Your task to perform on an android device: Do I have any events tomorrow? Image 0: 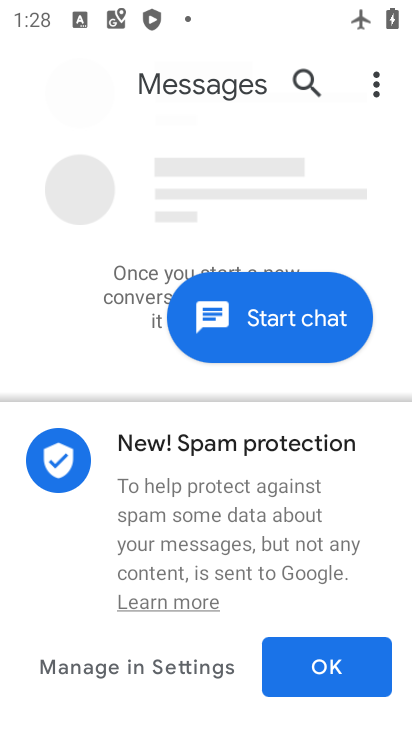
Step 0: press home button
Your task to perform on an android device: Do I have any events tomorrow? Image 1: 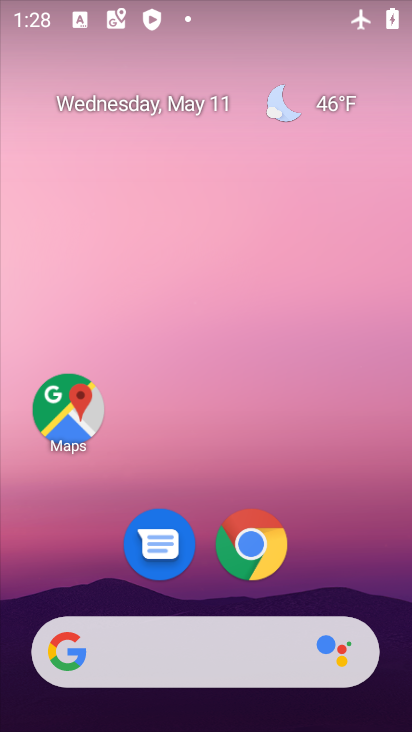
Step 1: drag from (391, 623) to (341, 24)
Your task to perform on an android device: Do I have any events tomorrow? Image 2: 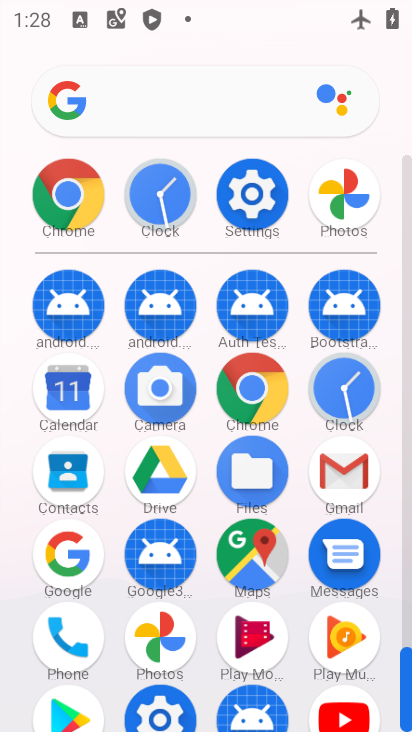
Step 2: click (406, 628)
Your task to perform on an android device: Do I have any events tomorrow? Image 3: 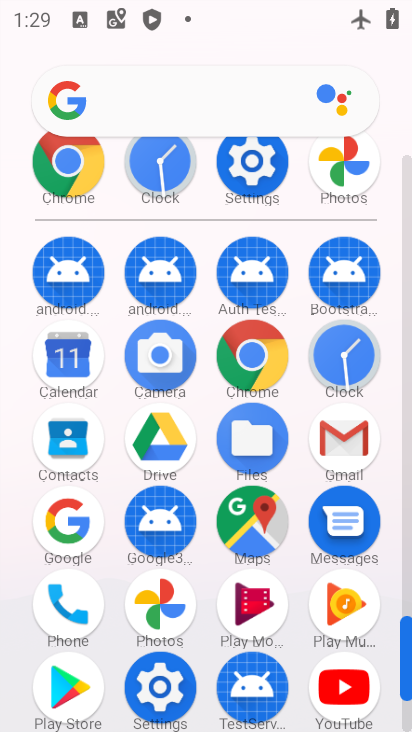
Step 3: click (62, 351)
Your task to perform on an android device: Do I have any events tomorrow? Image 4: 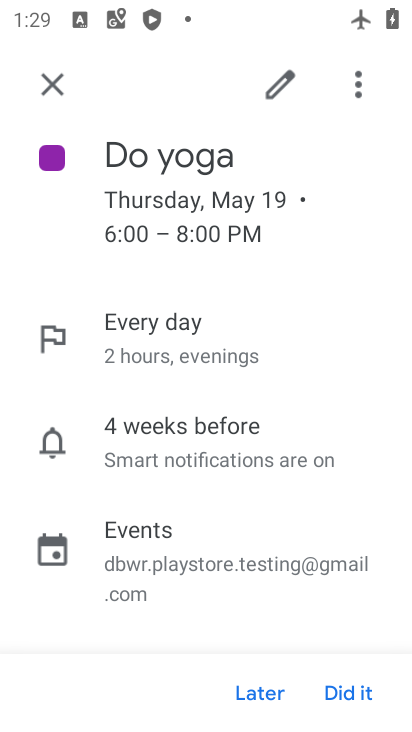
Step 4: click (51, 81)
Your task to perform on an android device: Do I have any events tomorrow? Image 5: 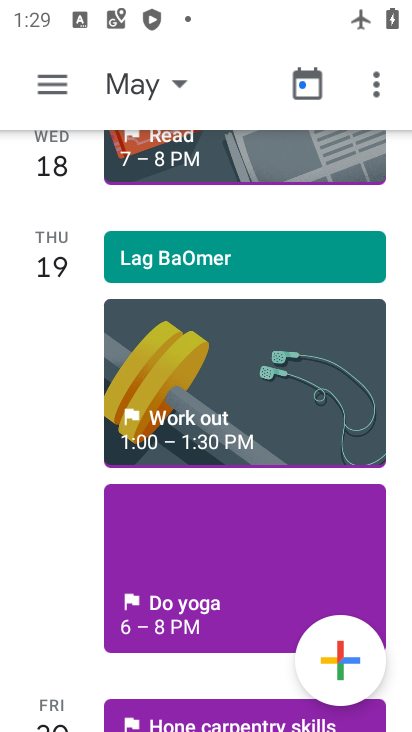
Step 5: click (182, 80)
Your task to perform on an android device: Do I have any events tomorrow? Image 6: 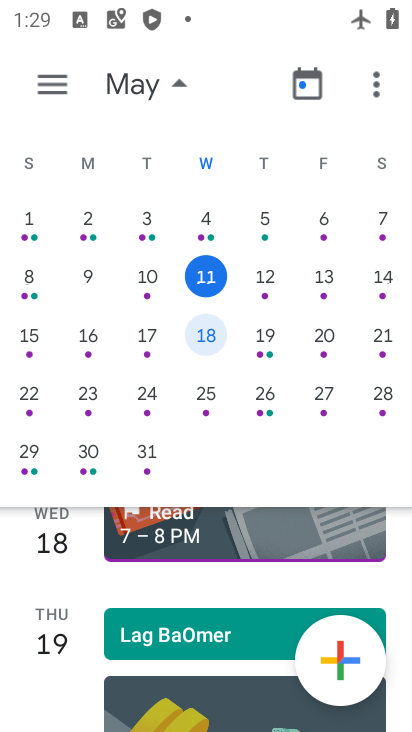
Step 6: click (49, 71)
Your task to perform on an android device: Do I have any events tomorrow? Image 7: 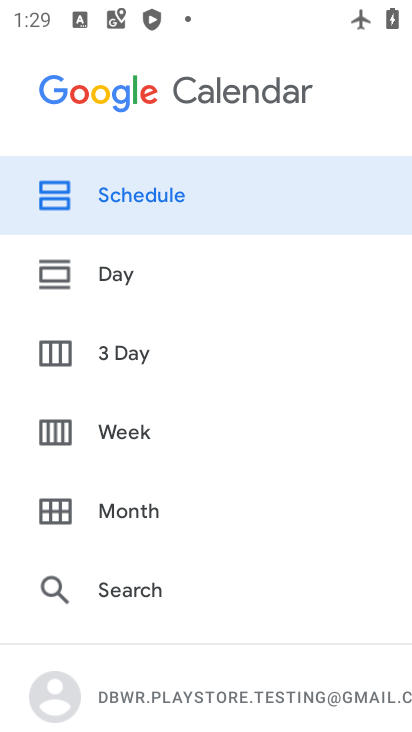
Step 7: click (117, 274)
Your task to perform on an android device: Do I have any events tomorrow? Image 8: 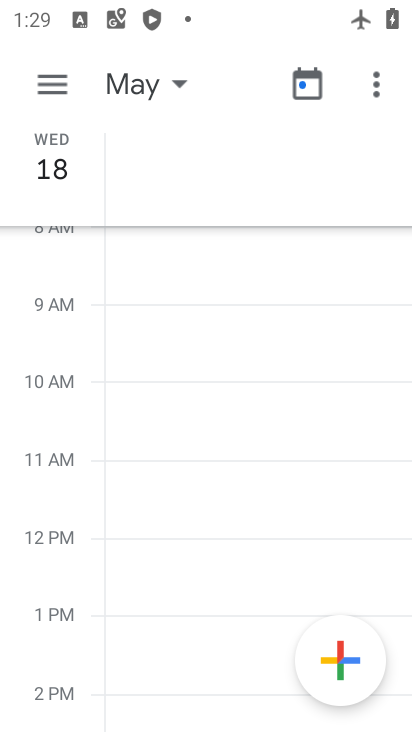
Step 8: click (182, 78)
Your task to perform on an android device: Do I have any events tomorrow? Image 9: 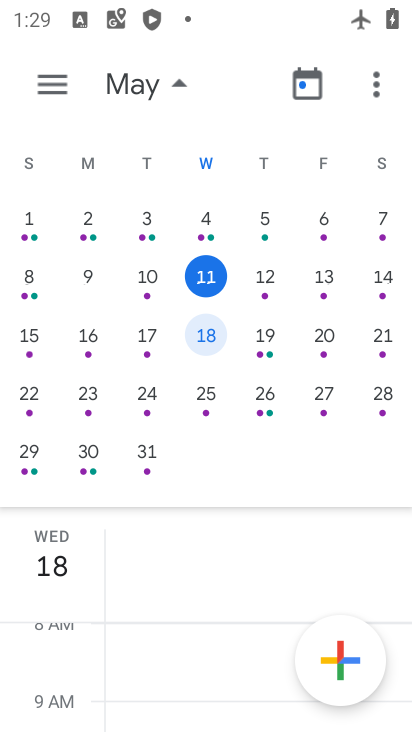
Step 9: click (270, 273)
Your task to perform on an android device: Do I have any events tomorrow? Image 10: 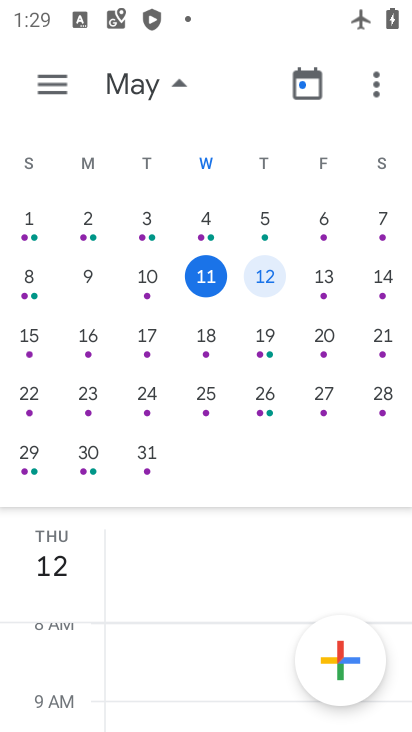
Step 10: task complete